Your task to perform on an android device: Show me recent news Image 0: 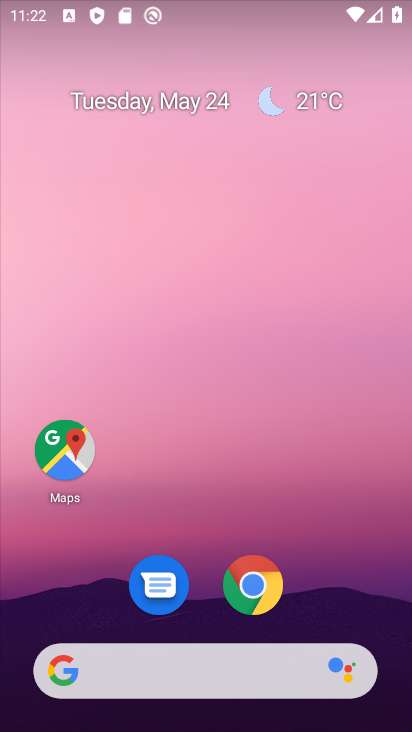
Step 0: click (282, 679)
Your task to perform on an android device: Show me recent news Image 1: 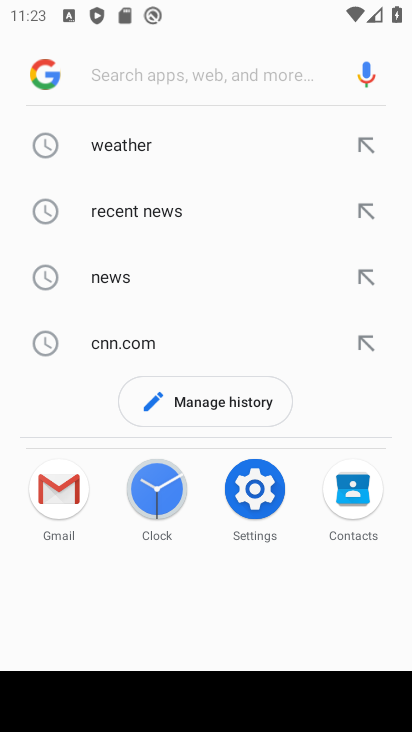
Step 1: click (59, 207)
Your task to perform on an android device: Show me recent news Image 2: 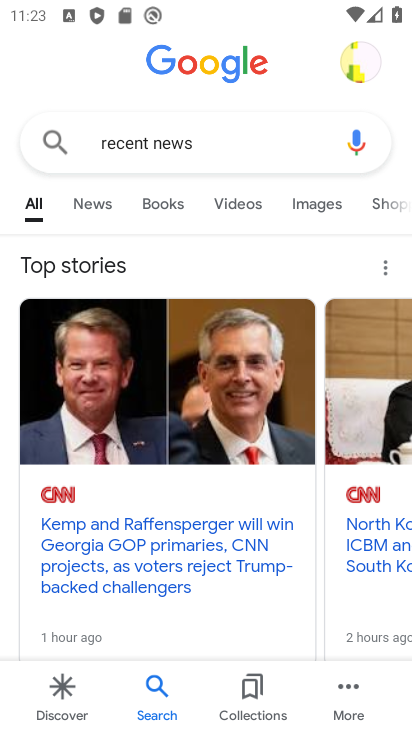
Step 2: task complete